Your task to perform on an android device: Search for seafood restaurants on Google Maps Image 0: 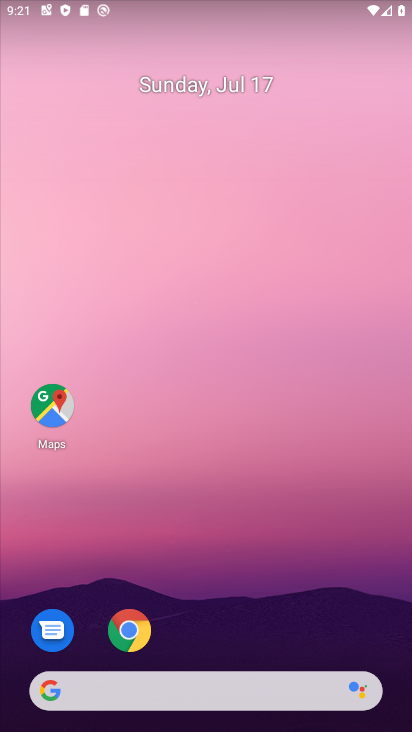
Step 0: drag from (210, 534) to (349, 31)
Your task to perform on an android device: Search for seafood restaurants on Google Maps Image 1: 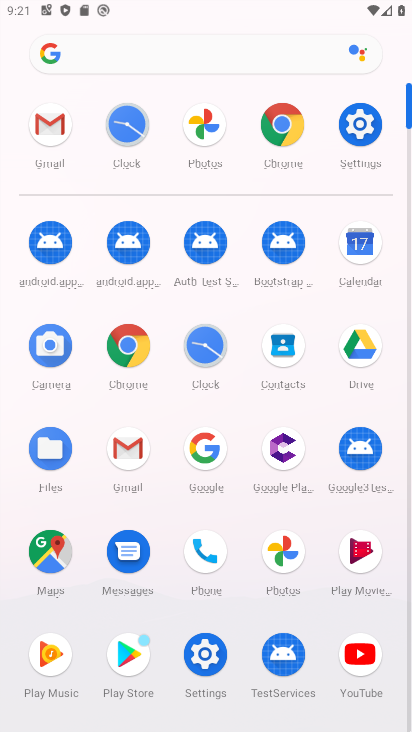
Step 1: click (62, 548)
Your task to perform on an android device: Search for seafood restaurants on Google Maps Image 2: 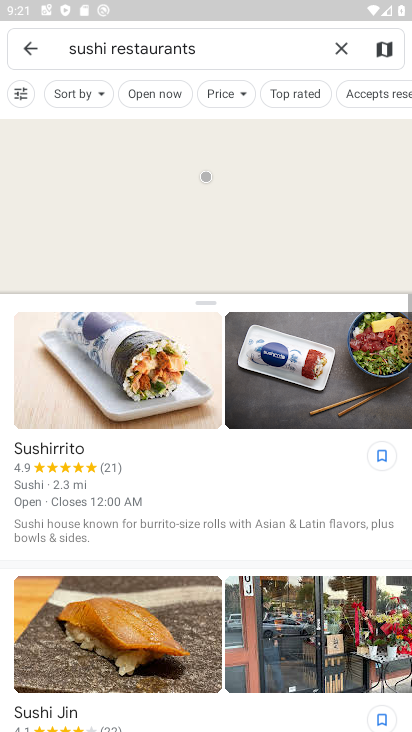
Step 2: click (346, 44)
Your task to perform on an android device: Search for seafood restaurants on Google Maps Image 3: 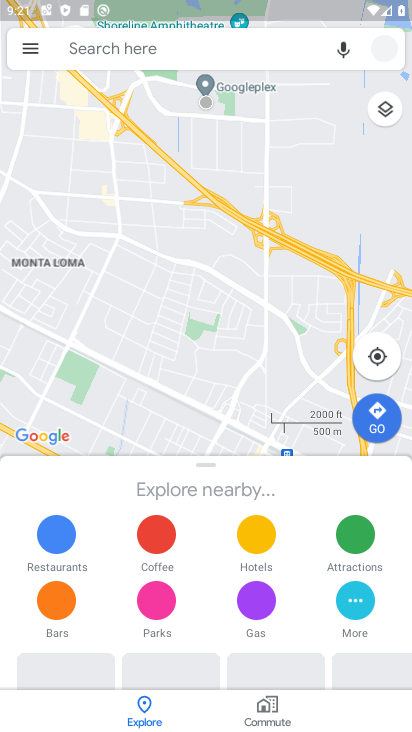
Step 3: click (202, 51)
Your task to perform on an android device: Search for seafood restaurants on Google Maps Image 4: 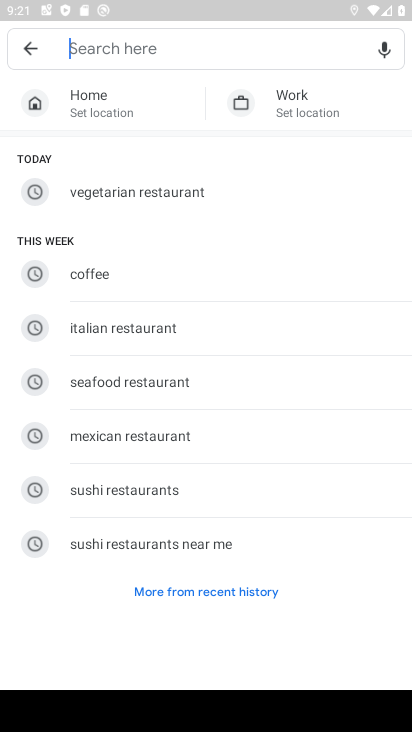
Step 4: click (125, 386)
Your task to perform on an android device: Search for seafood restaurants on Google Maps Image 5: 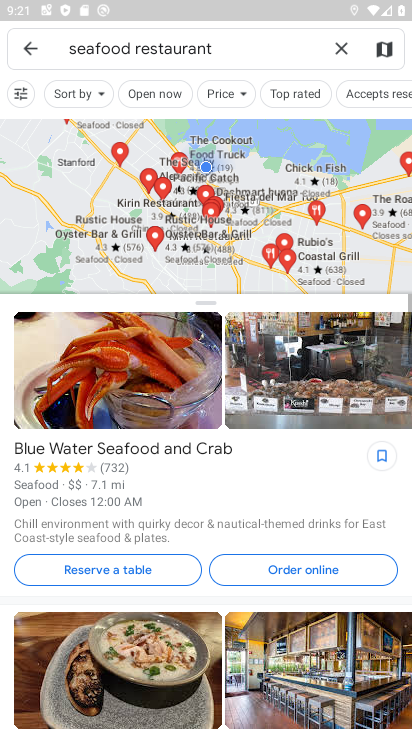
Step 5: task complete